Your task to perform on an android device: snooze an email in the gmail app Image 0: 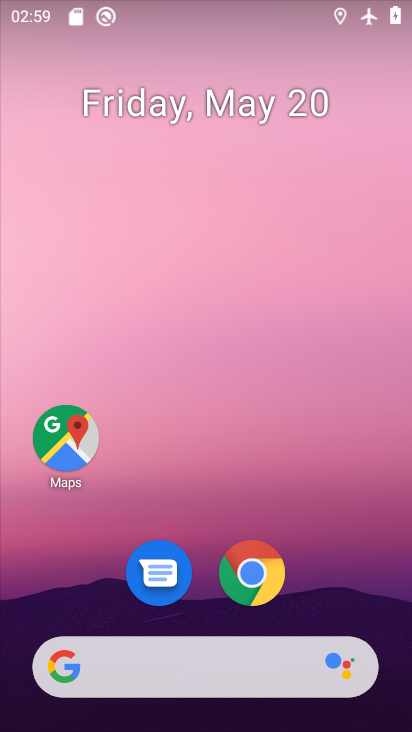
Step 0: drag from (212, 615) to (216, 124)
Your task to perform on an android device: snooze an email in the gmail app Image 1: 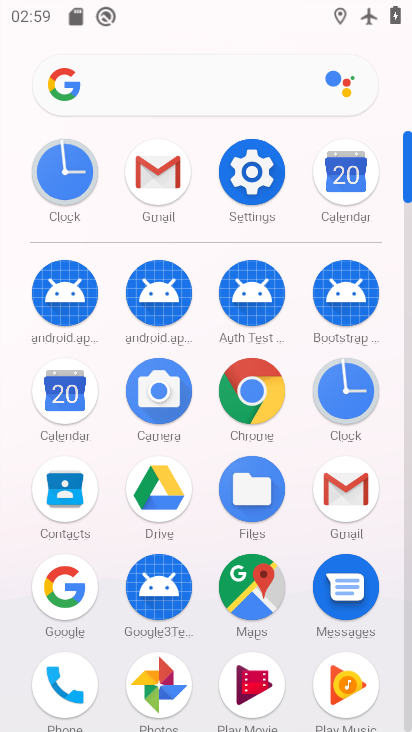
Step 1: click (335, 466)
Your task to perform on an android device: snooze an email in the gmail app Image 2: 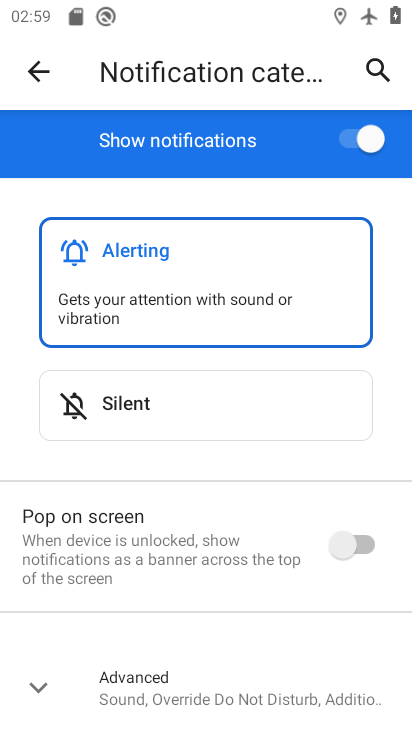
Step 2: click (41, 80)
Your task to perform on an android device: snooze an email in the gmail app Image 3: 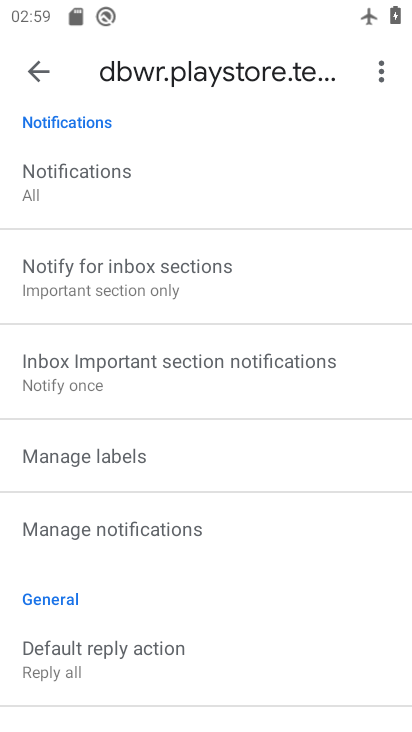
Step 3: click (41, 80)
Your task to perform on an android device: snooze an email in the gmail app Image 4: 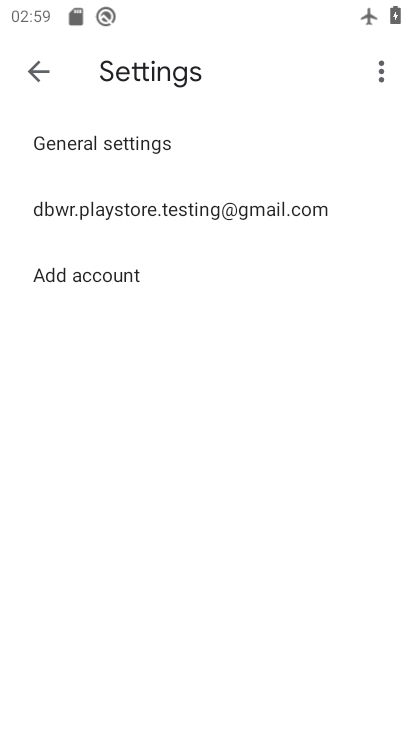
Step 4: click (41, 80)
Your task to perform on an android device: snooze an email in the gmail app Image 5: 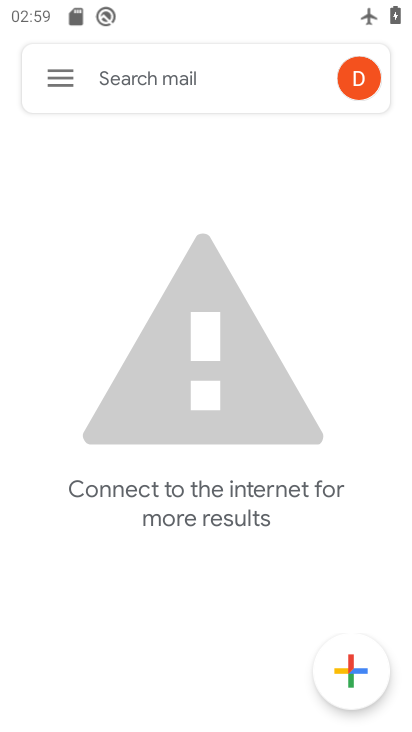
Step 5: click (41, 80)
Your task to perform on an android device: snooze an email in the gmail app Image 6: 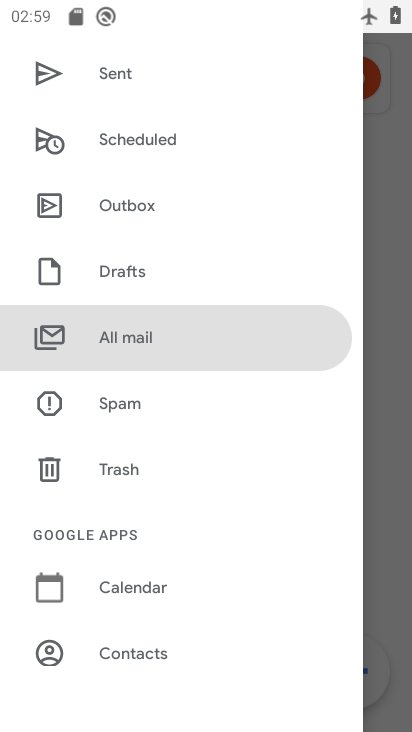
Step 6: click (153, 327)
Your task to perform on an android device: snooze an email in the gmail app Image 7: 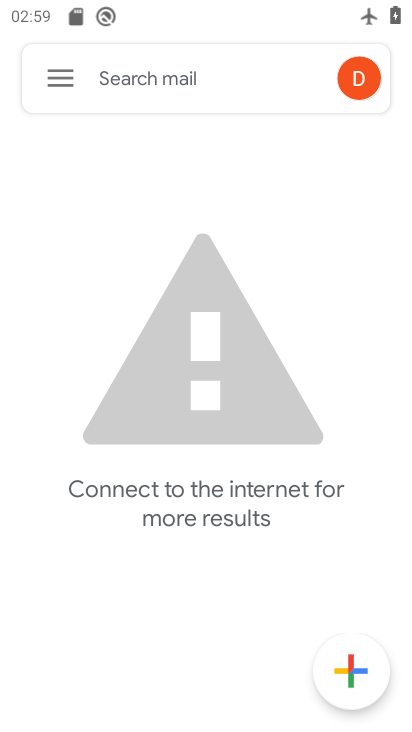
Step 7: task complete